Your task to perform on an android device: Go to Android settings Image 0: 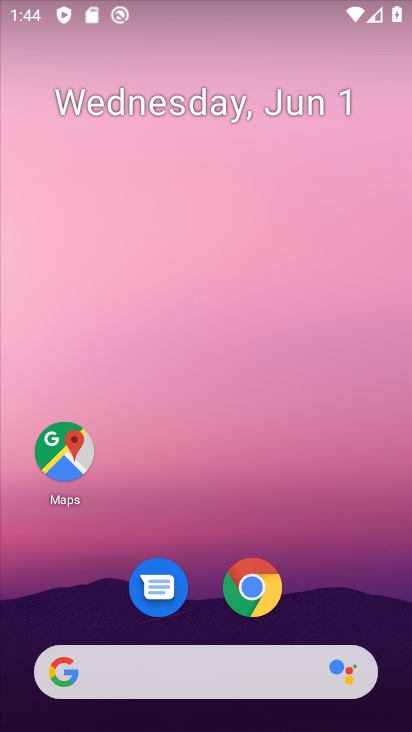
Step 0: drag from (346, 557) to (318, 100)
Your task to perform on an android device: Go to Android settings Image 1: 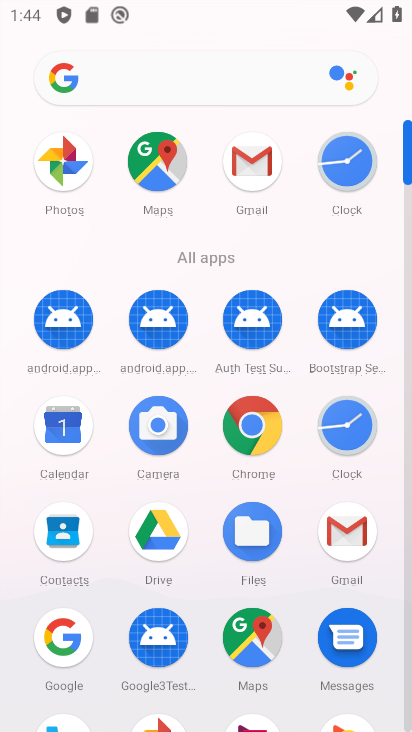
Step 1: drag from (111, 598) to (124, 197)
Your task to perform on an android device: Go to Android settings Image 2: 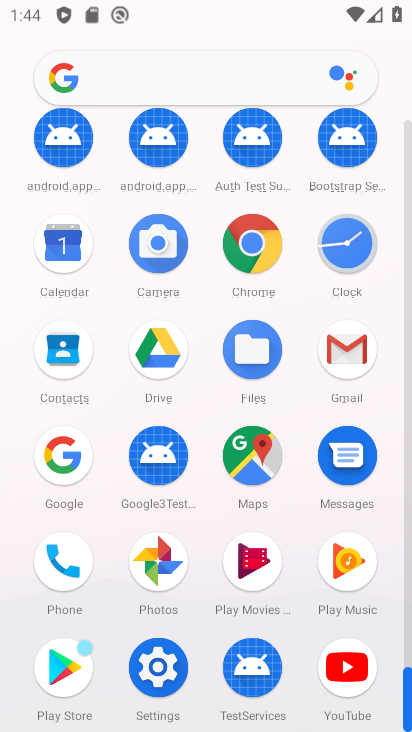
Step 2: drag from (110, 642) to (103, 465)
Your task to perform on an android device: Go to Android settings Image 3: 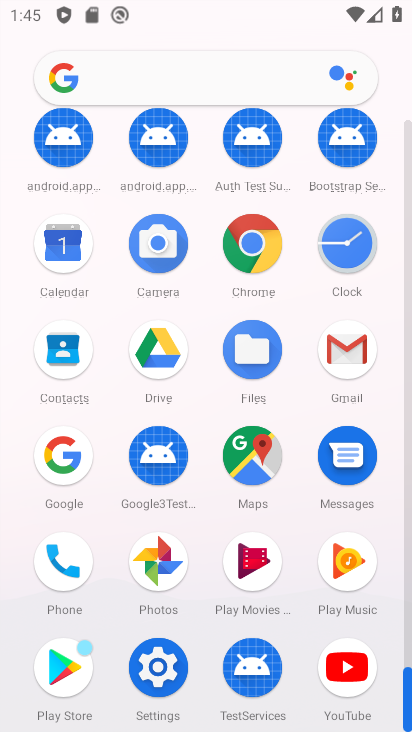
Step 3: click (160, 672)
Your task to perform on an android device: Go to Android settings Image 4: 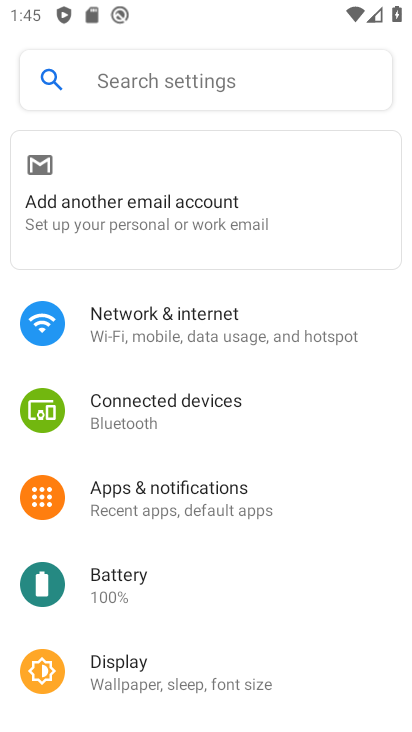
Step 4: task complete